Your task to perform on an android device: turn notification dots on Image 0: 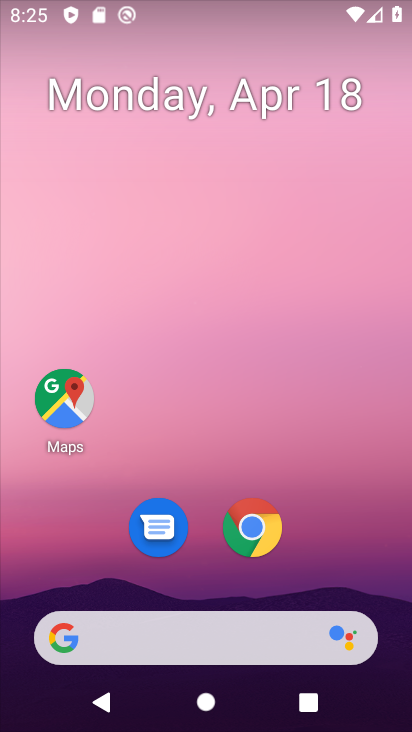
Step 0: drag from (199, 434) to (232, 35)
Your task to perform on an android device: turn notification dots on Image 1: 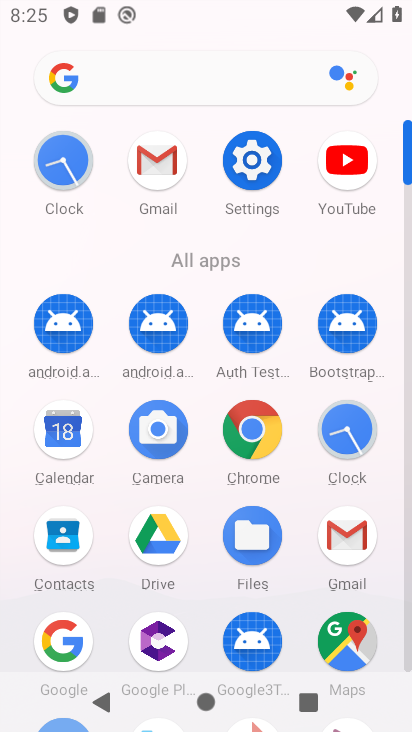
Step 1: click (251, 149)
Your task to perform on an android device: turn notification dots on Image 2: 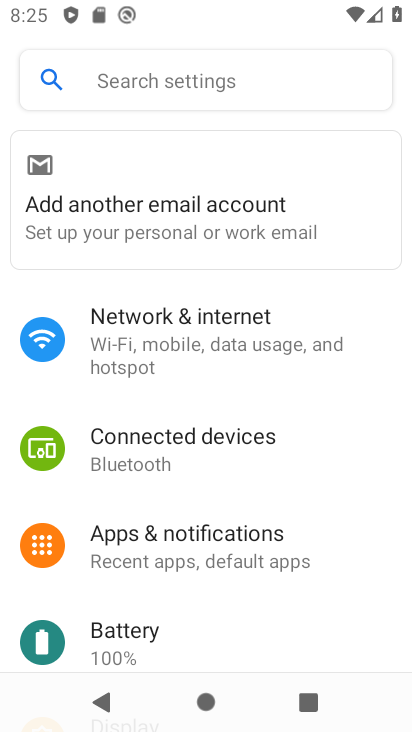
Step 2: click (195, 541)
Your task to perform on an android device: turn notification dots on Image 3: 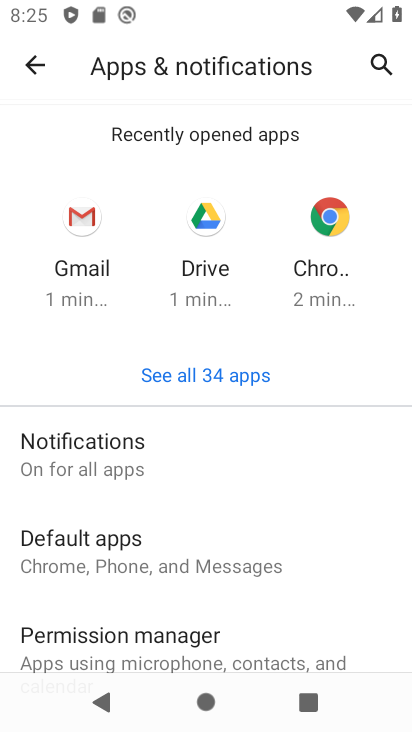
Step 3: click (160, 466)
Your task to perform on an android device: turn notification dots on Image 4: 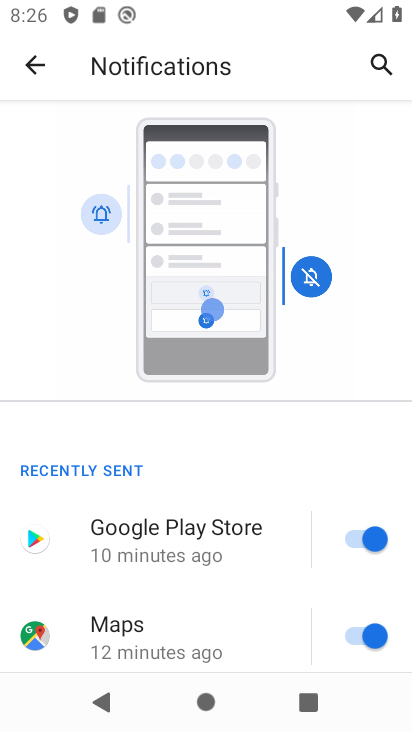
Step 4: drag from (197, 538) to (198, 197)
Your task to perform on an android device: turn notification dots on Image 5: 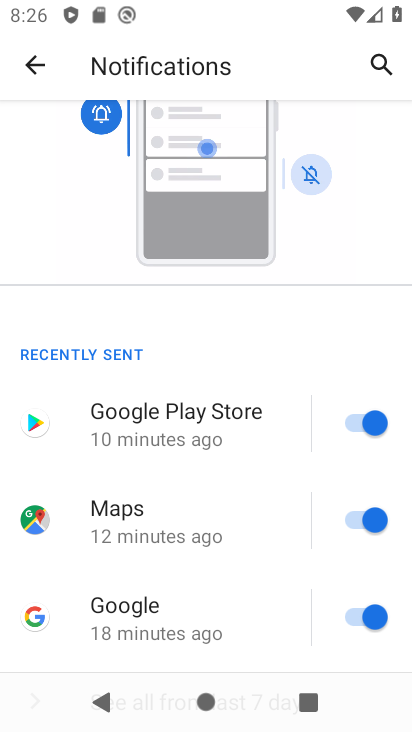
Step 5: drag from (225, 528) to (242, 172)
Your task to perform on an android device: turn notification dots on Image 6: 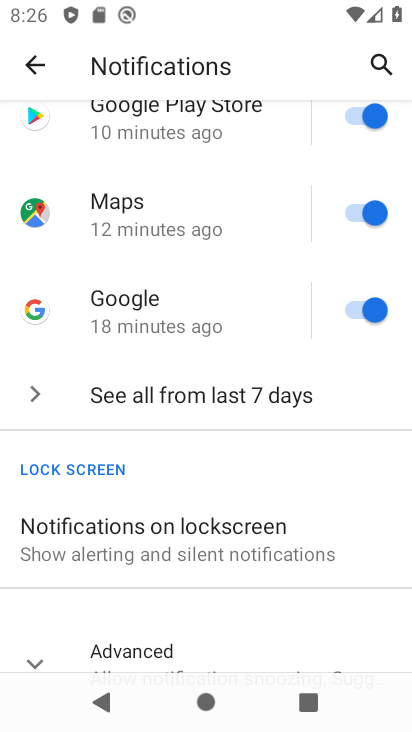
Step 6: drag from (218, 571) to (232, 206)
Your task to perform on an android device: turn notification dots on Image 7: 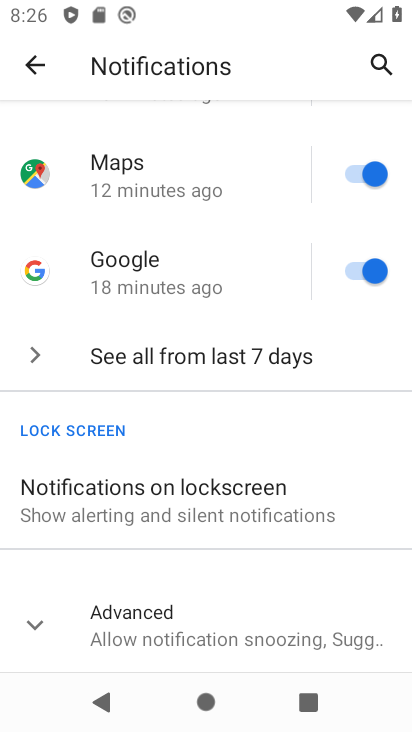
Step 7: click (194, 617)
Your task to perform on an android device: turn notification dots on Image 8: 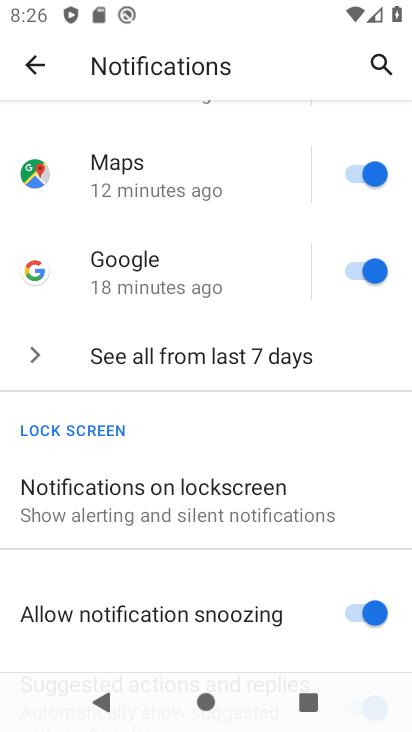
Step 8: task complete